Your task to perform on an android device: Open Yahoo.com Image 0: 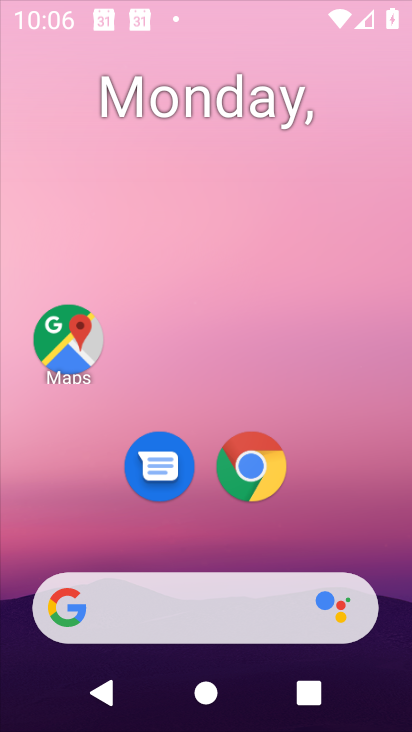
Step 0: drag from (290, 409) to (149, 117)
Your task to perform on an android device: Open Yahoo.com Image 1: 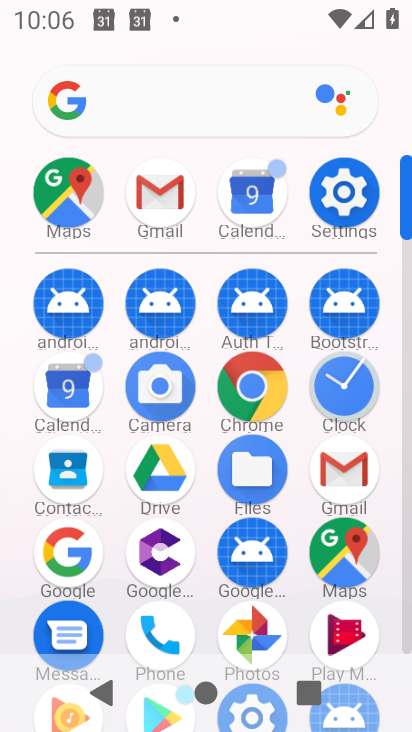
Step 1: click (252, 399)
Your task to perform on an android device: Open Yahoo.com Image 2: 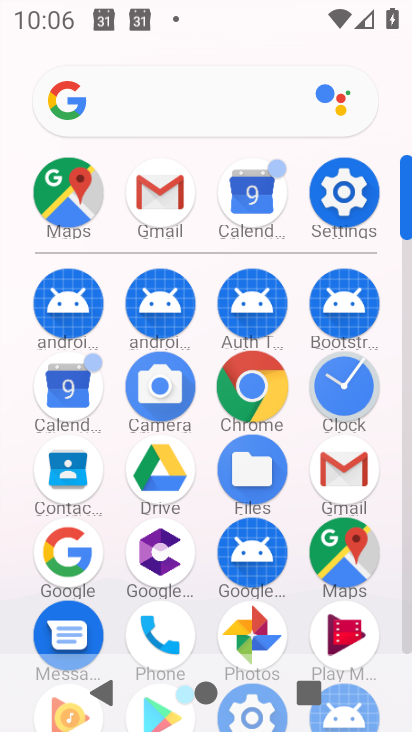
Step 2: click (251, 399)
Your task to perform on an android device: Open Yahoo.com Image 3: 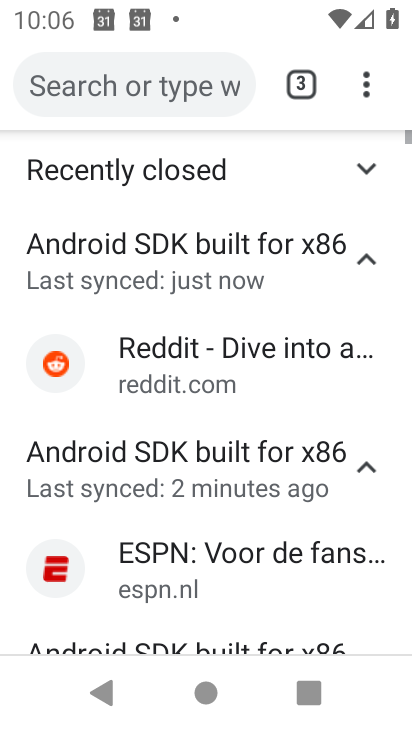
Step 3: drag from (365, 83) to (88, 181)
Your task to perform on an android device: Open Yahoo.com Image 4: 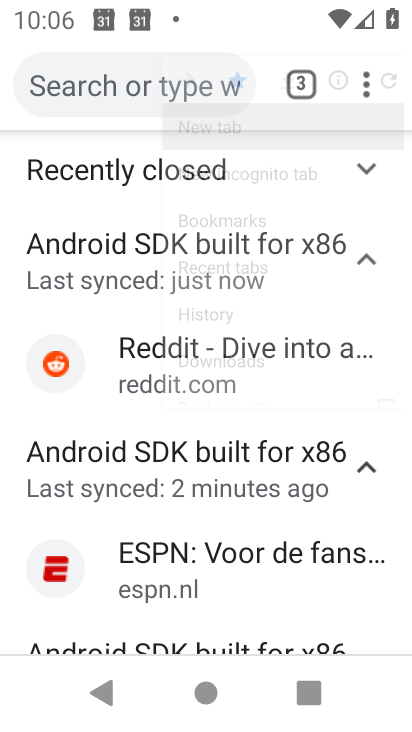
Step 4: click (88, 181)
Your task to perform on an android device: Open Yahoo.com Image 5: 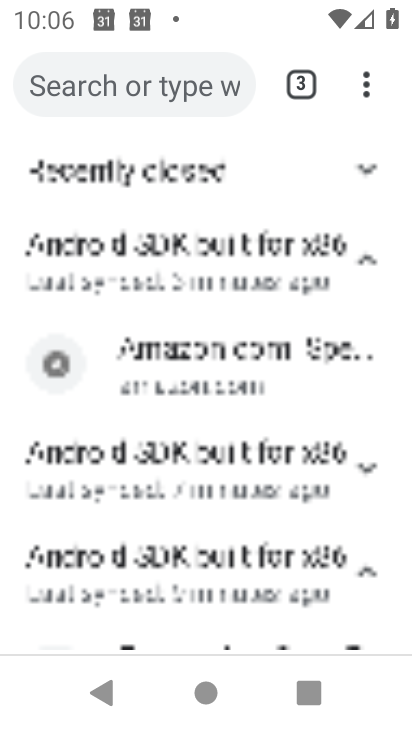
Step 5: click (89, 178)
Your task to perform on an android device: Open Yahoo.com Image 6: 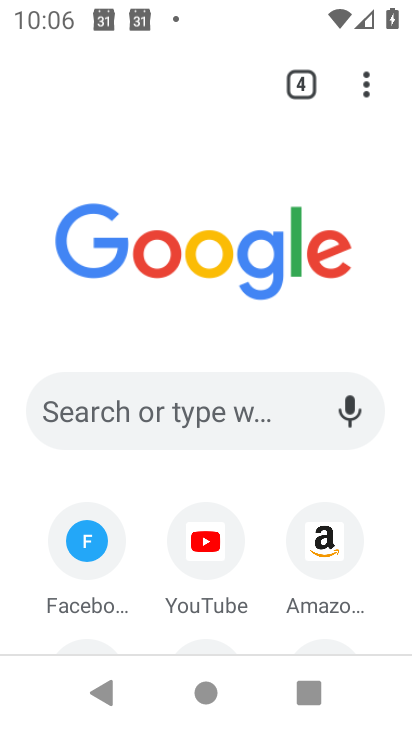
Step 6: drag from (240, 561) to (171, 269)
Your task to perform on an android device: Open Yahoo.com Image 7: 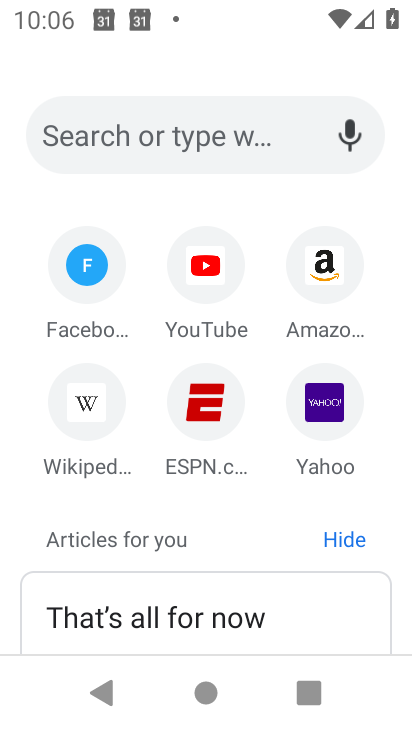
Step 7: drag from (264, 472) to (198, 82)
Your task to perform on an android device: Open Yahoo.com Image 8: 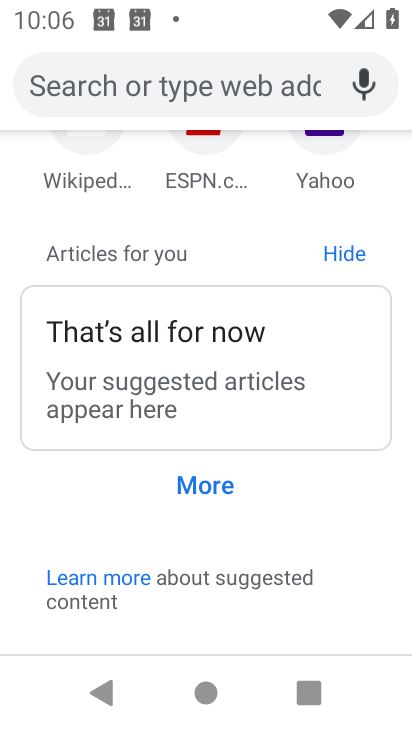
Step 8: drag from (214, 262) to (275, 669)
Your task to perform on an android device: Open Yahoo.com Image 9: 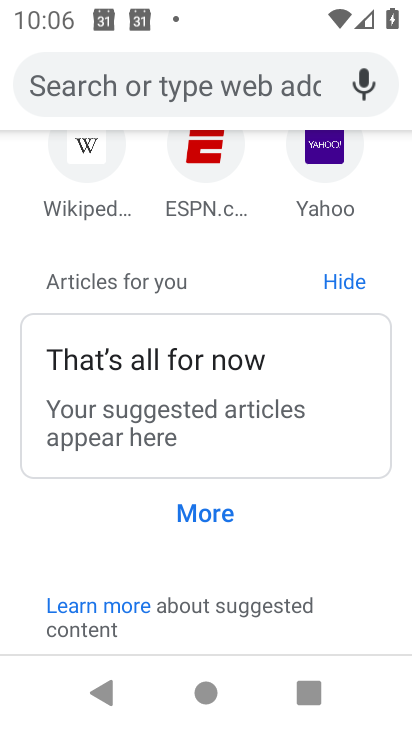
Step 9: click (334, 160)
Your task to perform on an android device: Open Yahoo.com Image 10: 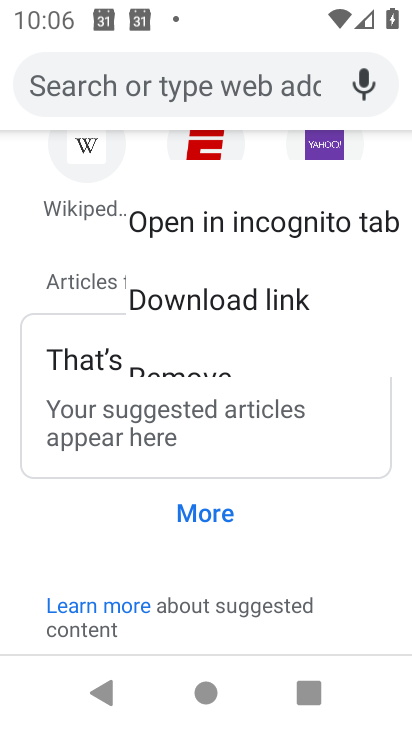
Step 10: click (334, 160)
Your task to perform on an android device: Open Yahoo.com Image 11: 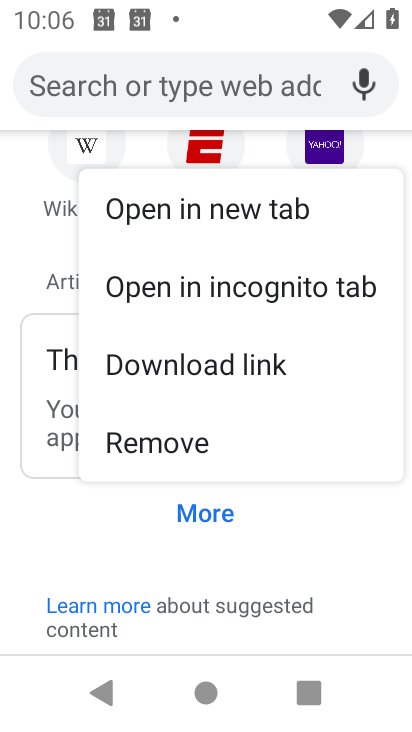
Step 11: click (339, 156)
Your task to perform on an android device: Open Yahoo.com Image 12: 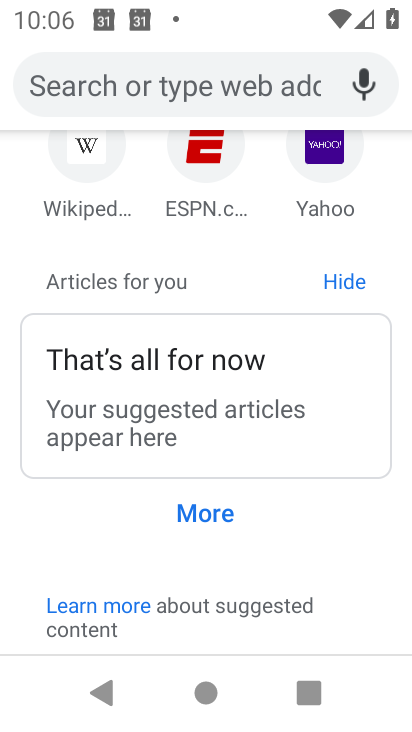
Step 12: click (327, 159)
Your task to perform on an android device: Open Yahoo.com Image 13: 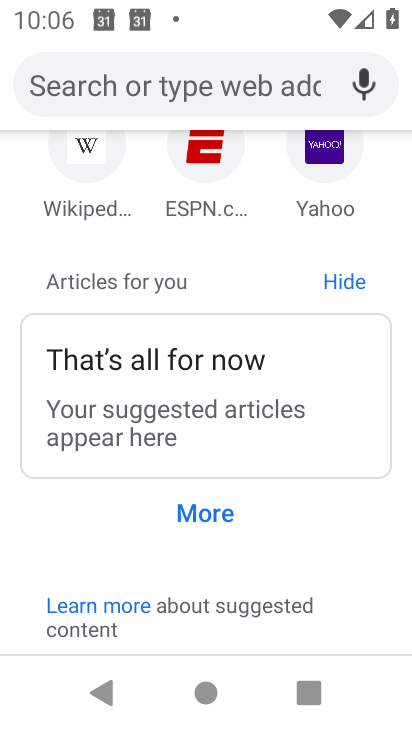
Step 13: click (327, 159)
Your task to perform on an android device: Open Yahoo.com Image 14: 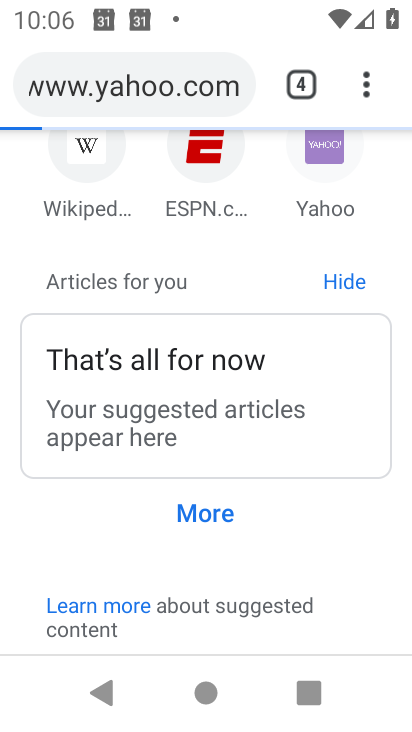
Step 14: click (329, 153)
Your task to perform on an android device: Open Yahoo.com Image 15: 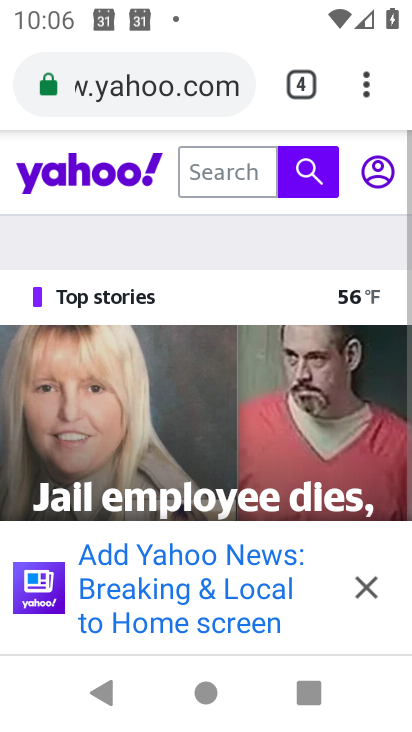
Step 15: task complete